Your task to perform on an android device: find photos in the google photos app Image 0: 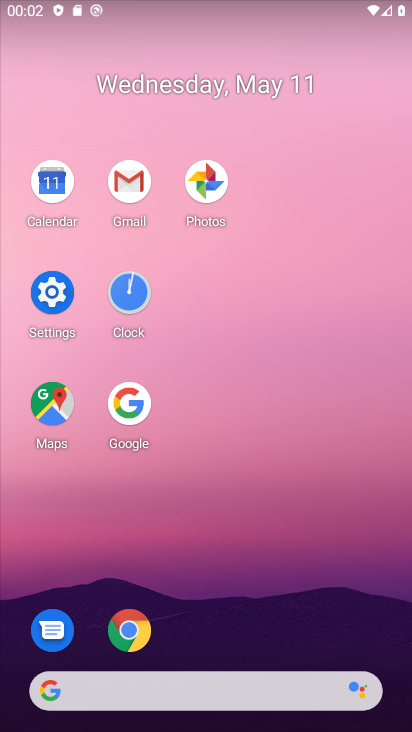
Step 0: click (210, 185)
Your task to perform on an android device: find photos in the google photos app Image 1: 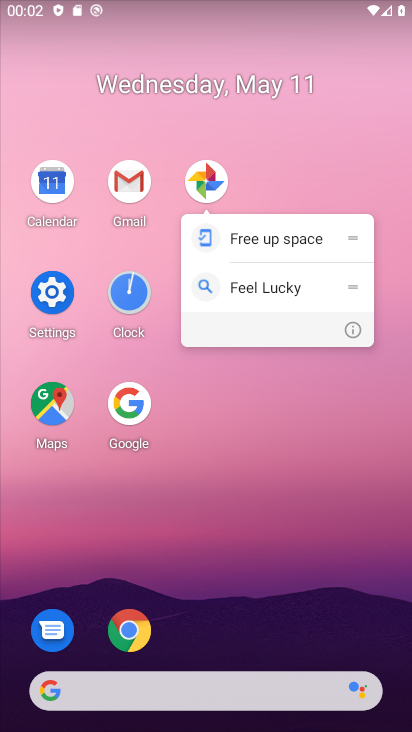
Step 1: click (209, 187)
Your task to perform on an android device: find photos in the google photos app Image 2: 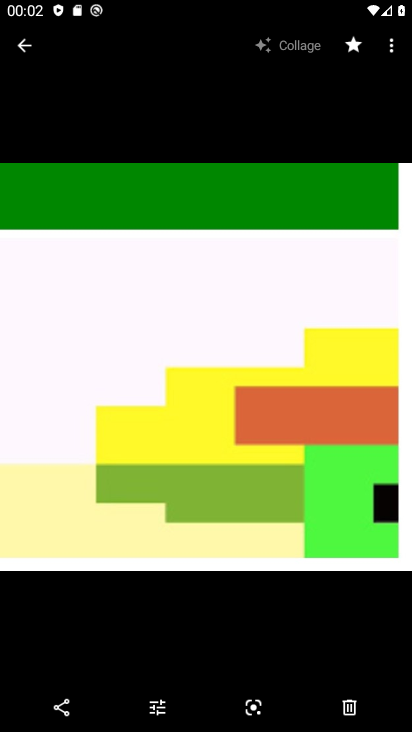
Step 2: click (220, 186)
Your task to perform on an android device: find photos in the google photos app Image 3: 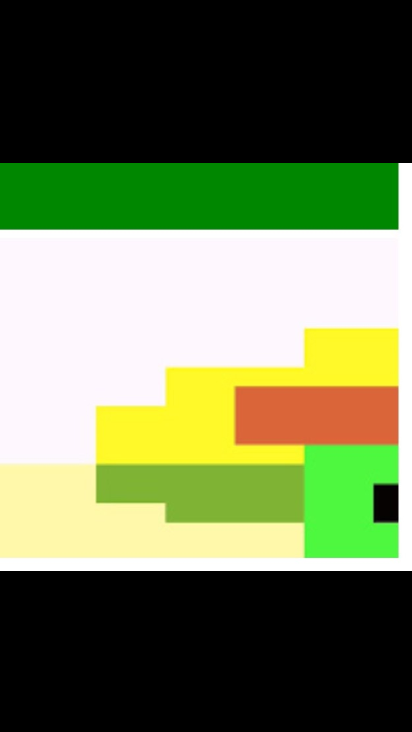
Step 3: task complete